Your task to perform on an android device: stop showing notifications on the lock screen Image 0: 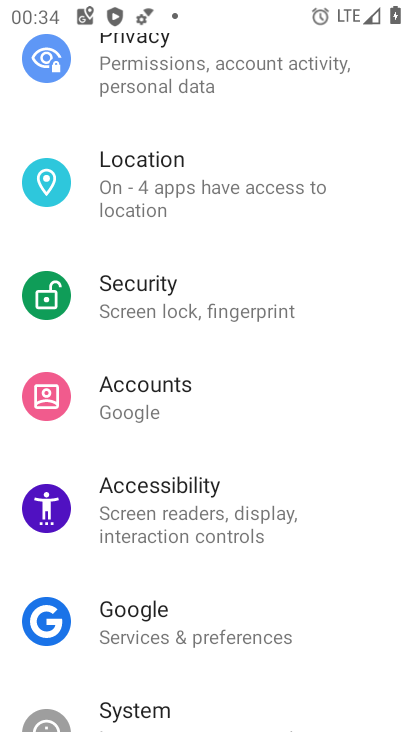
Step 0: drag from (215, 190) to (246, 469)
Your task to perform on an android device: stop showing notifications on the lock screen Image 1: 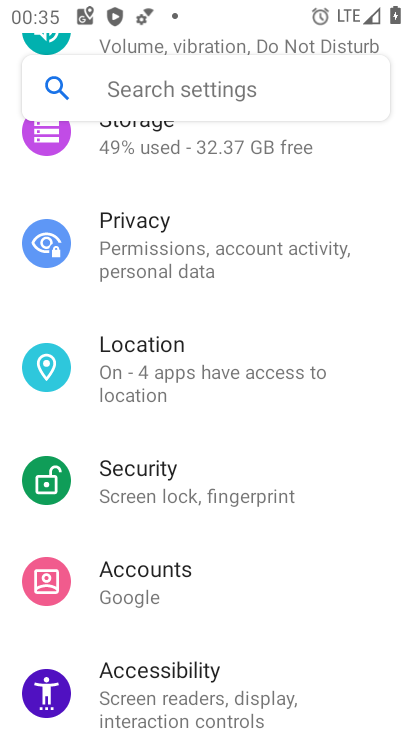
Step 1: drag from (245, 229) to (263, 543)
Your task to perform on an android device: stop showing notifications on the lock screen Image 2: 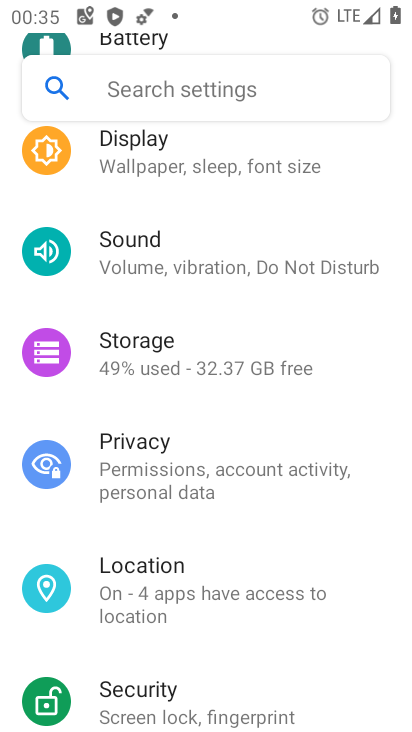
Step 2: drag from (212, 215) to (212, 378)
Your task to perform on an android device: stop showing notifications on the lock screen Image 3: 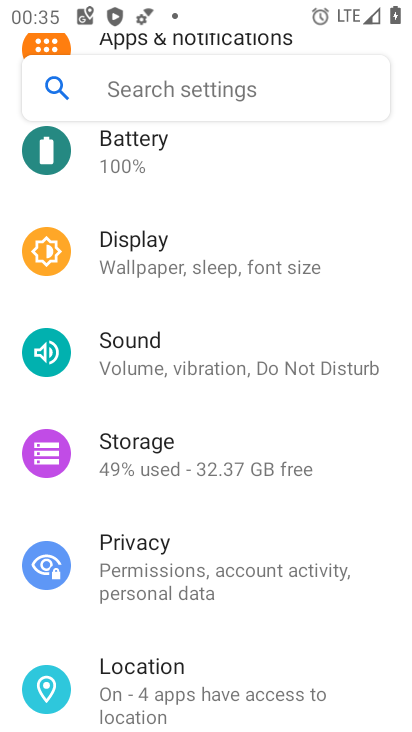
Step 3: drag from (248, 246) to (267, 560)
Your task to perform on an android device: stop showing notifications on the lock screen Image 4: 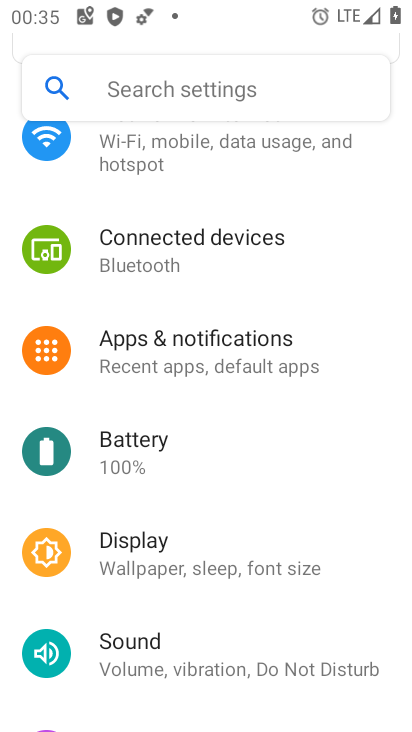
Step 4: click (245, 364)
Your task to perform on an android device: stop showing notifications on the lock screen Image 5: 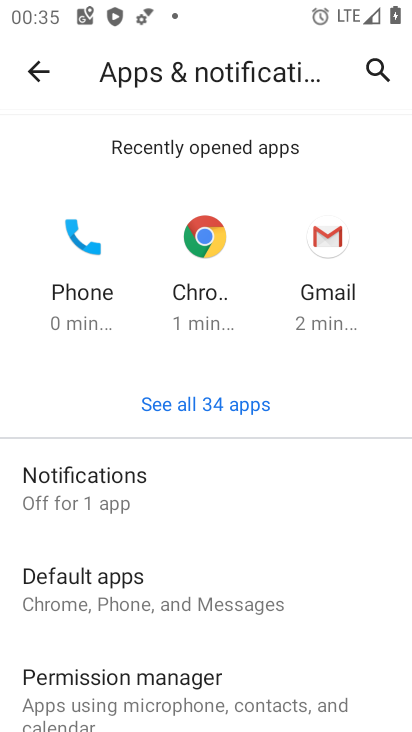
Step 5: click (163, 491)
Your task to perform on an android device: stop showing notifications on the lock screen Image 6: 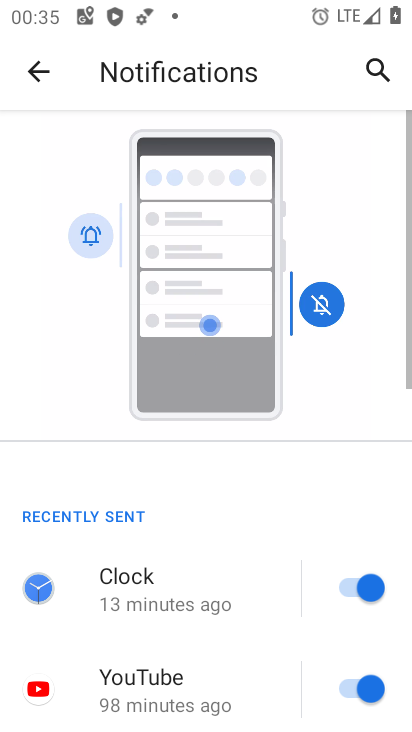
Step 6: drag from (209, 638) to (269, 208)
Your task to perform on an android device: stop showing notifications on the lock screen Image 7: 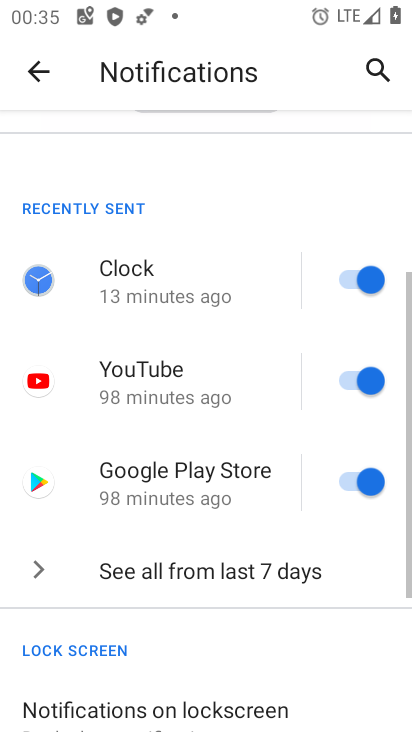
Step 7: drag from (240, 614) to (270, 330)
Your task to perform on an android device: stop showing notifications on the lock screen Image 8: 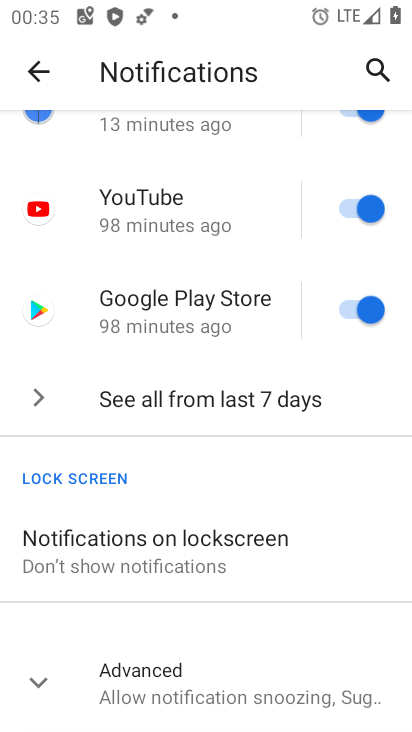
Step 8: click (223, 554)
Your task to perform on an android device: stop showing notifications on the lock screen Image 9: 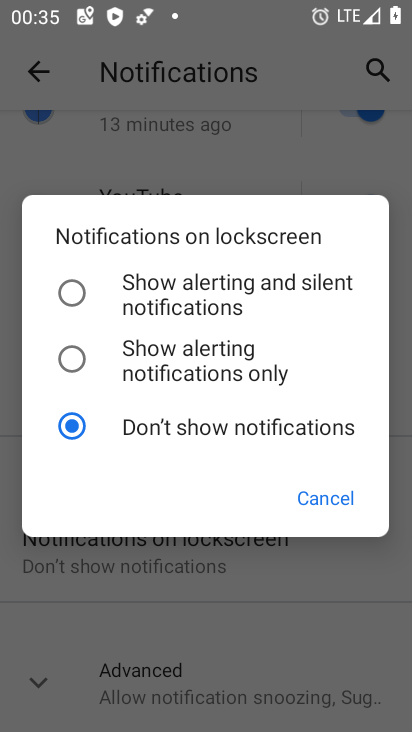
Step 9: click (201, 301)
Your task to perform on an android device: stop showing notifications on the lock screen Image 10: 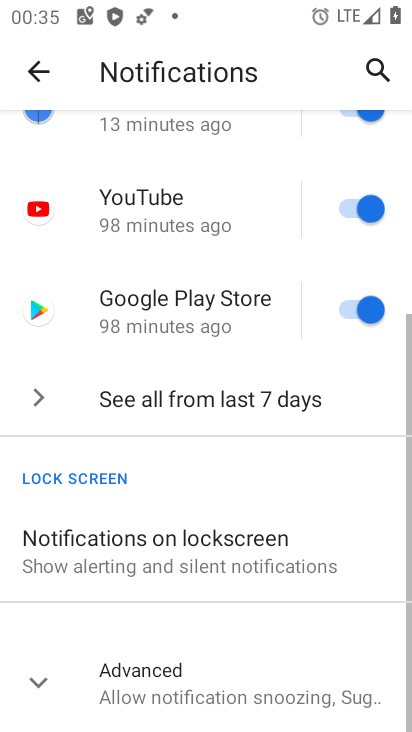
Step 10: click (229, 510)
Your task to perform on an android device: stop showing notifications on the lock screen Image 11: 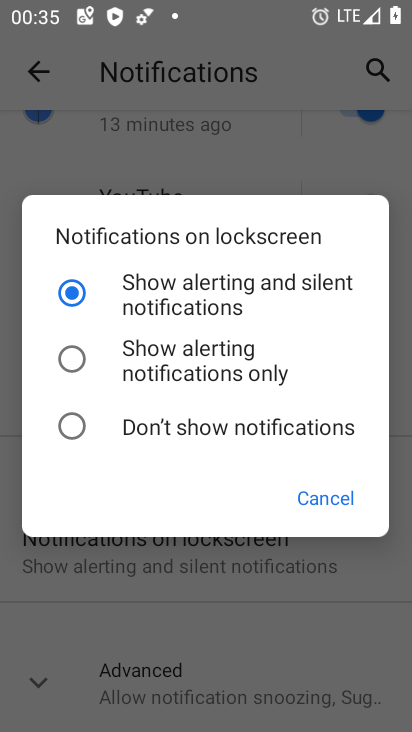
Step 11: click (137, 409)
Your task to perform on an android device: stop showing notifications on the lock screen Image 12: 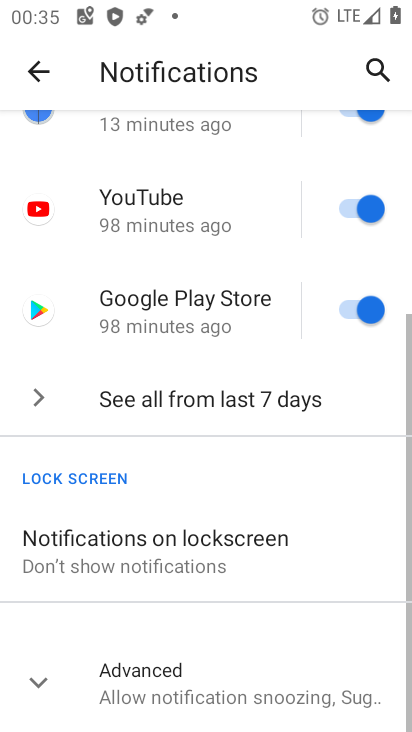
Step 12: task complete